Your task to perform on an android device: open a bookmark in the chrome app Image 0: 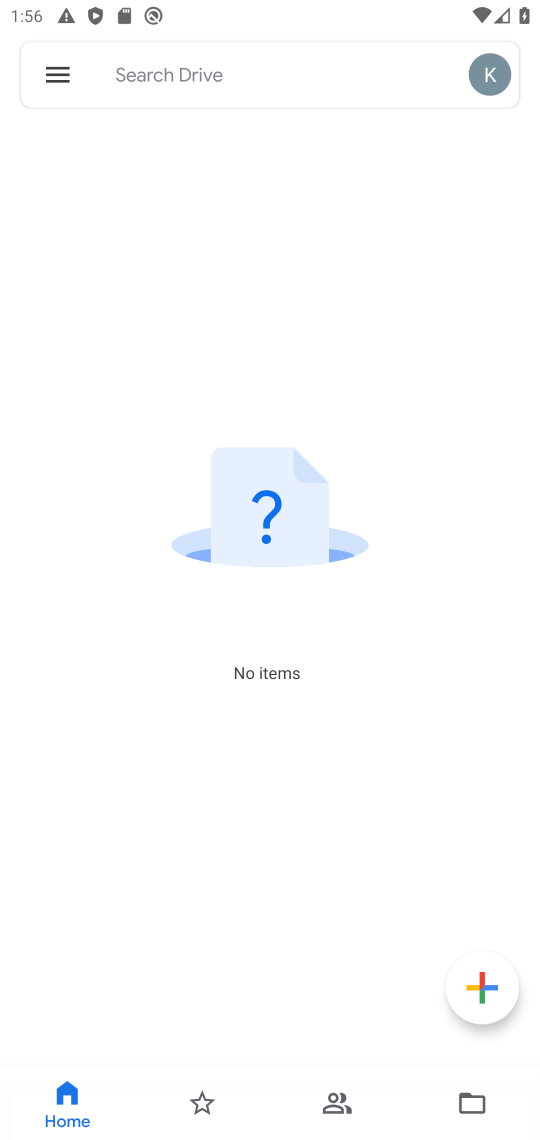
Step 0: press back button
Your task to perform on an android device: open a bookmark in the chrome app Image 1: 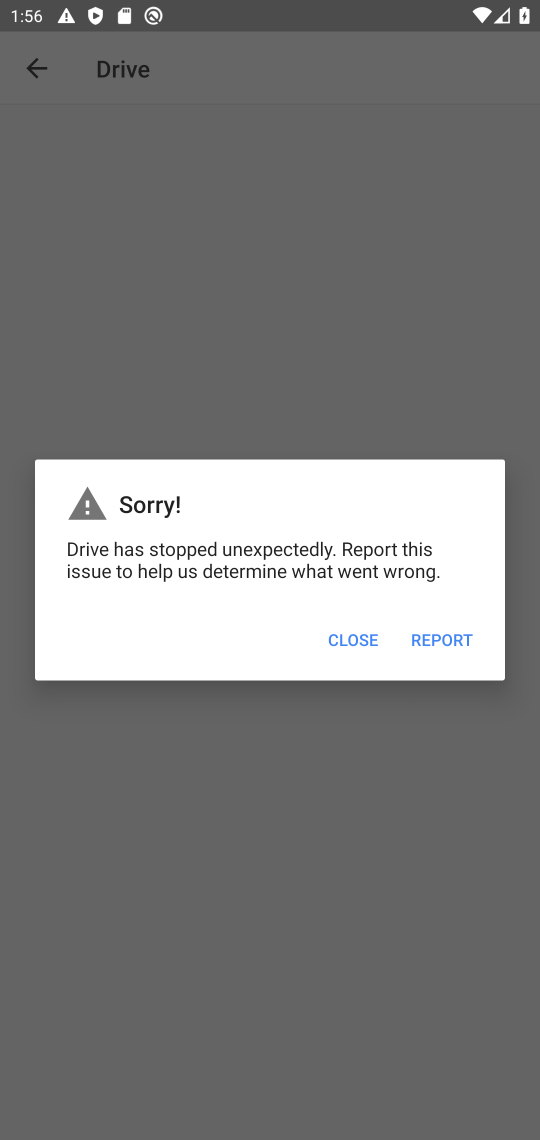
Step 1: press home button
Your task to perform on an android device: open a bookmark in the chrome app Image 2: 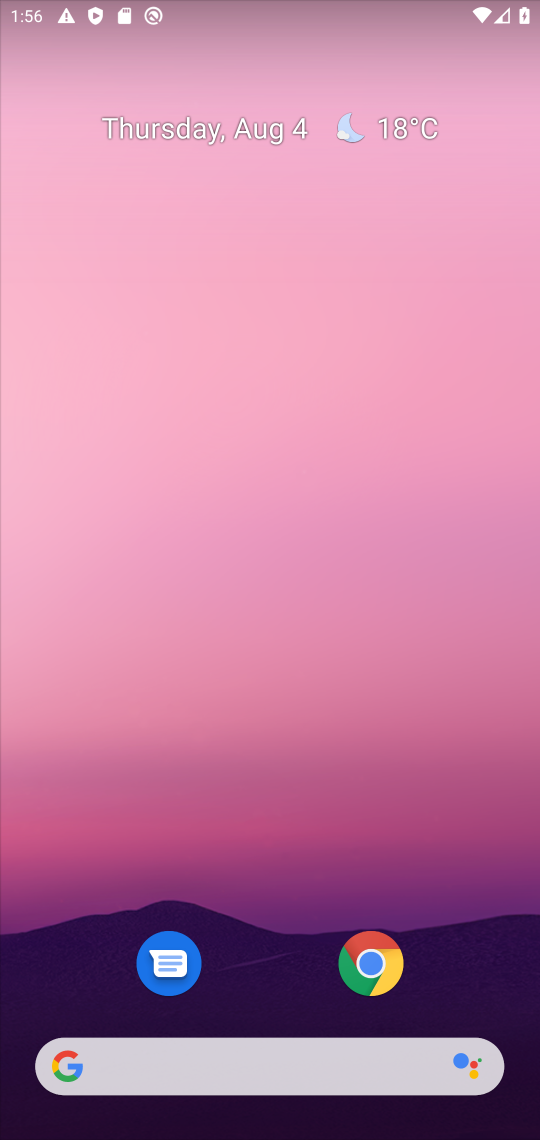
Step 2: click (365, 973)
Your task to perform on an android device: open a bookmark in the chrome app Image 3: 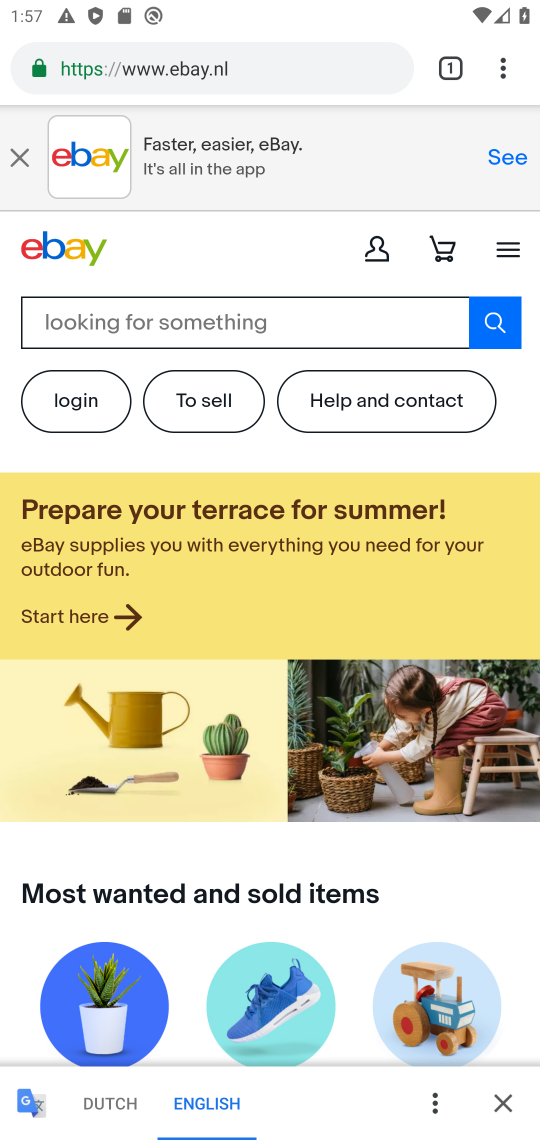
Step 3: drag from (504, 74) to (335, 348)
Your task to perform on an android device: open a bookmark in the chrome app Image 4: 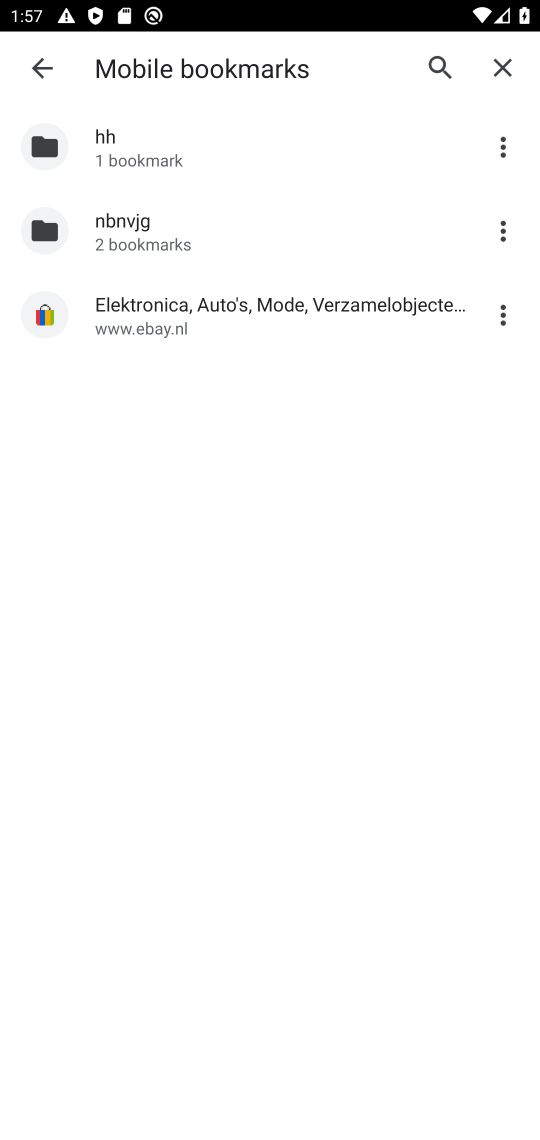
Step 4: click (136, 330)
Your task to perform on an android device: open a bookmark in the chrome app Image 5: 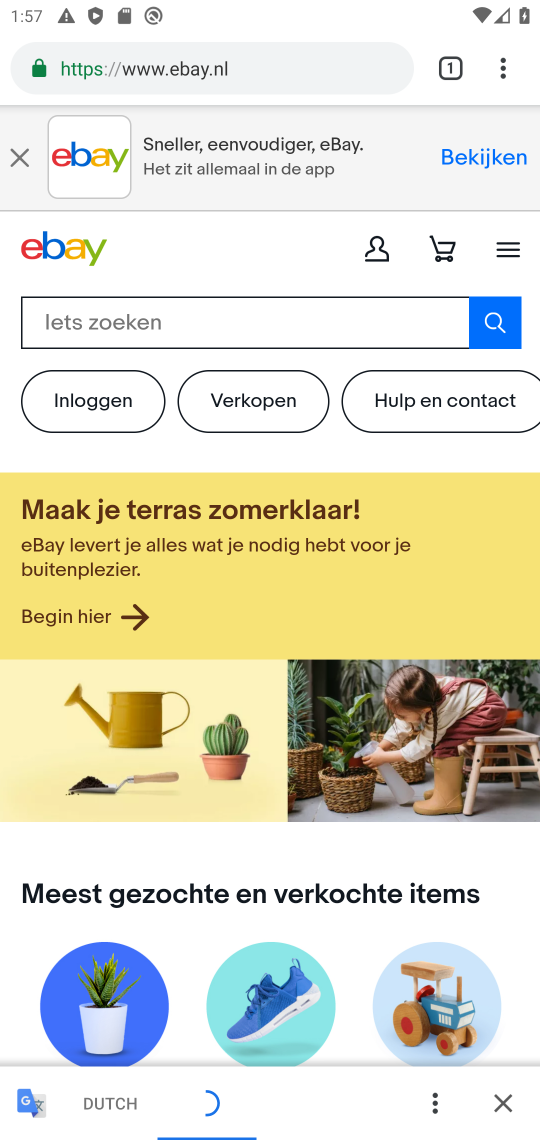
Step 5: task complete